Your task to perform on an android device: Open Chrome and go to settings Image 0: 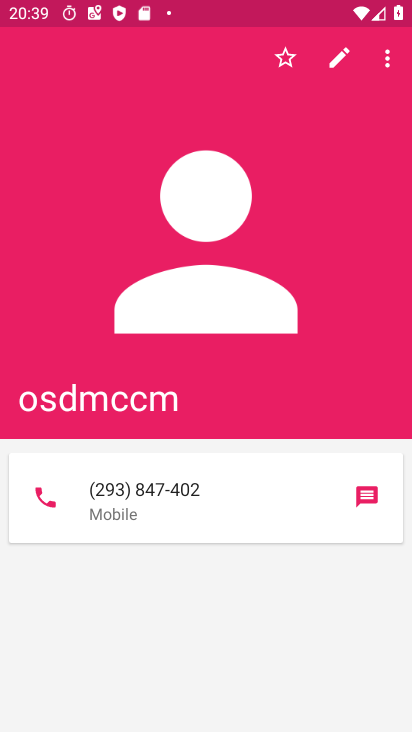
Step 0: press home button
Your task to perform on an android device: Open Chrome and go to settings Image 1: 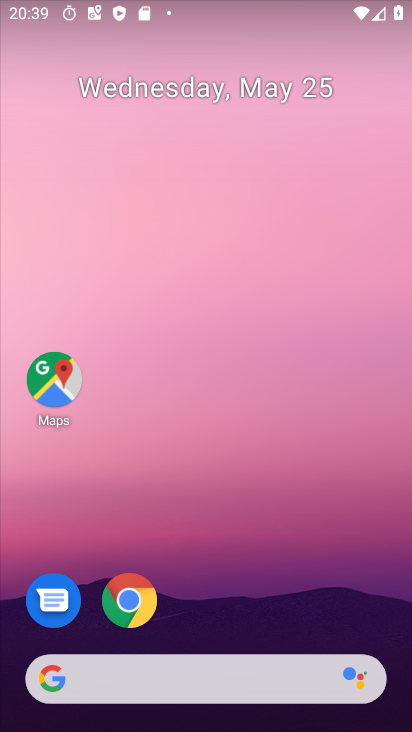
Step 1: drag from (330, 591) to (259, 198)
Your task to perform on an android device: Open Chrome and go to settings Image 2: 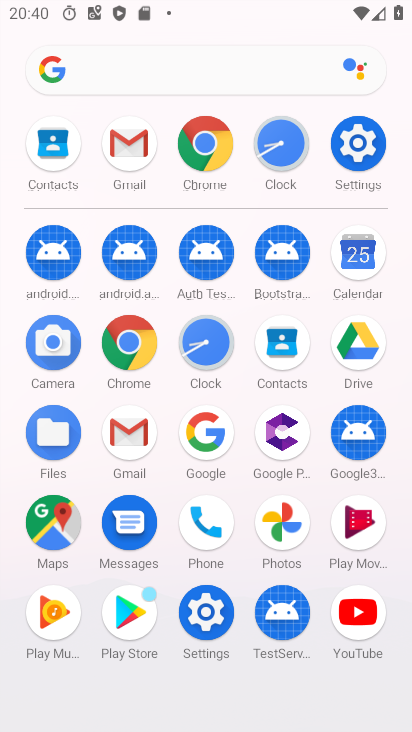
Step 2: click (124, 356)
Your task to perform on an android device: Open Chrome and go to settings Image 3: 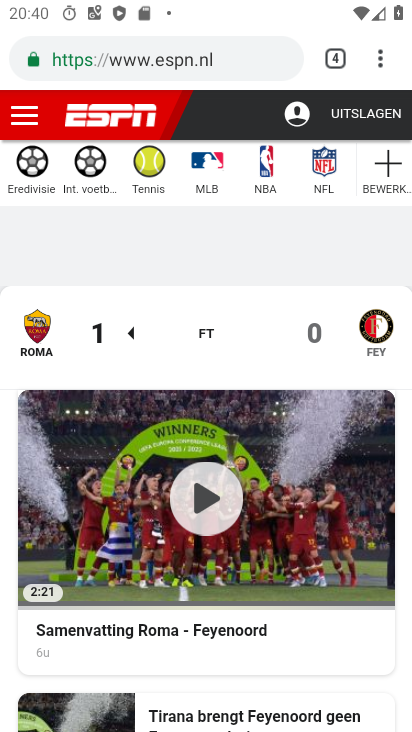
Step 3: task complete